Your task to perform on an android device: toggle airplane mode Image 0: 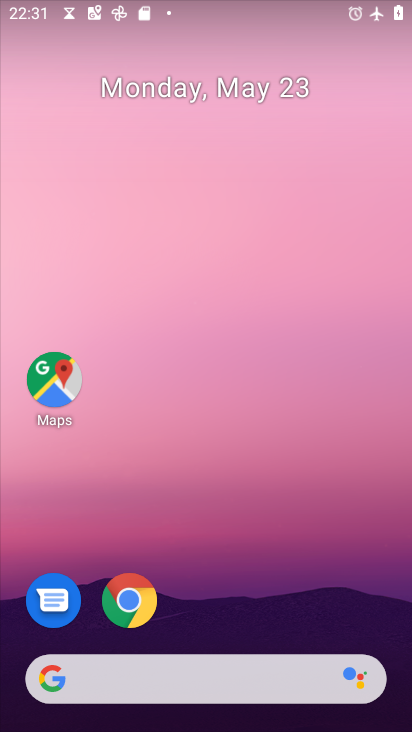
Step 0: drag from (236, 726) to (223, 44)
Your task to perform on an android device: toggle airplane mode Image 1: 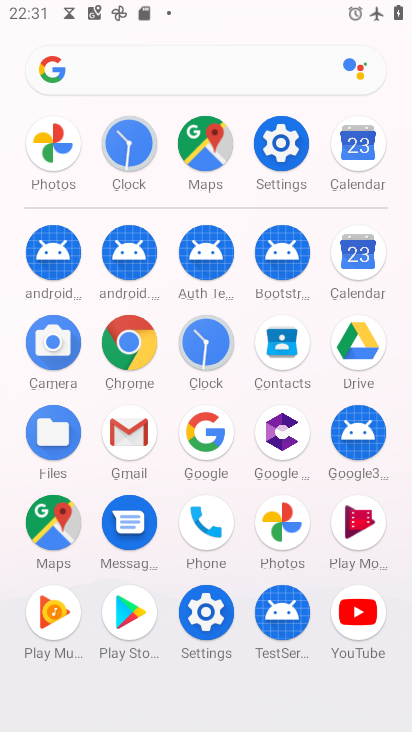
Step 1: click (278, 150)
Your task to perform on an android device: toggle airplane mode Image 2: 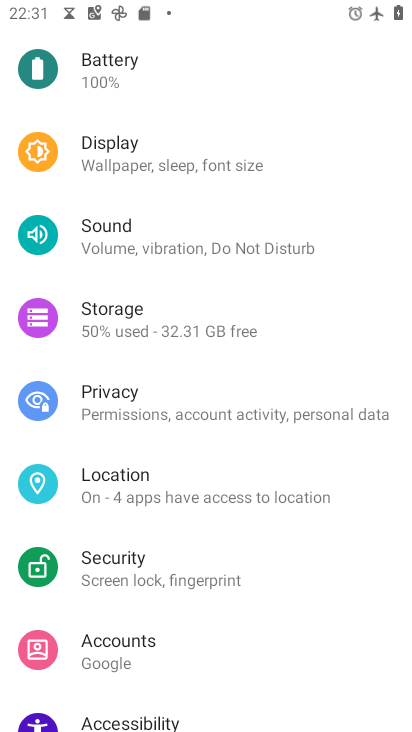
Step 2: drag from (340, 127) to (328, 543)
Your task to perform on an android device: toggle airplane mode Image 3: 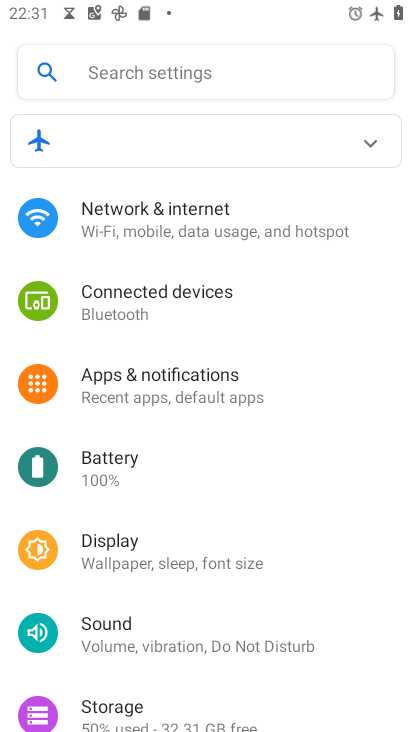
Step 3: click (143, 225)
Your task to perform on an android device: toggle airplane mode Image 4: 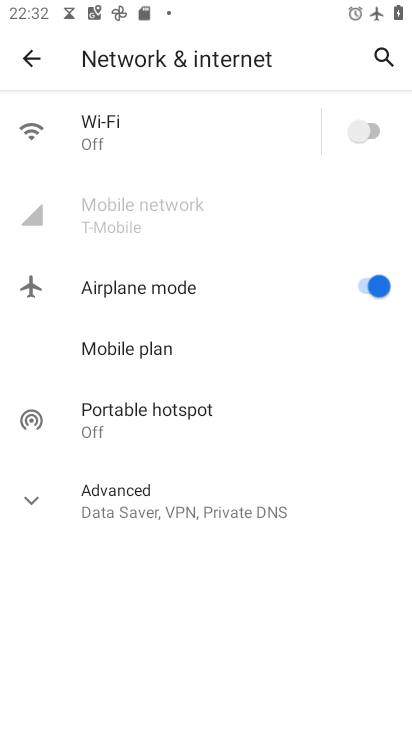
Step 4: click (364, 287)
Your task to perform on an android device: toggle airplane mode Image 5: 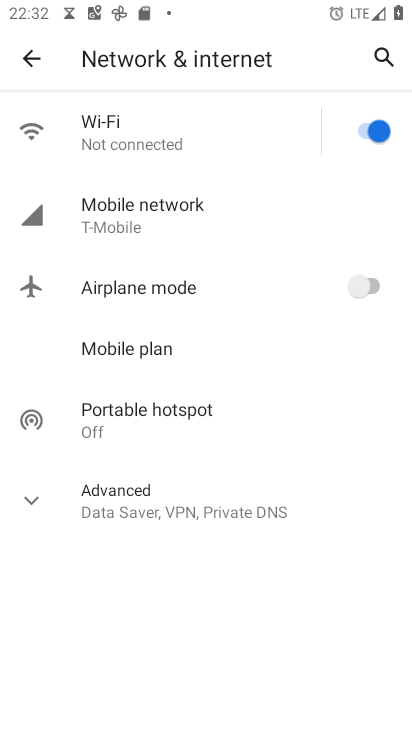
Step 5: task complete